Your task to perform on an android device: Open Google Image 0: 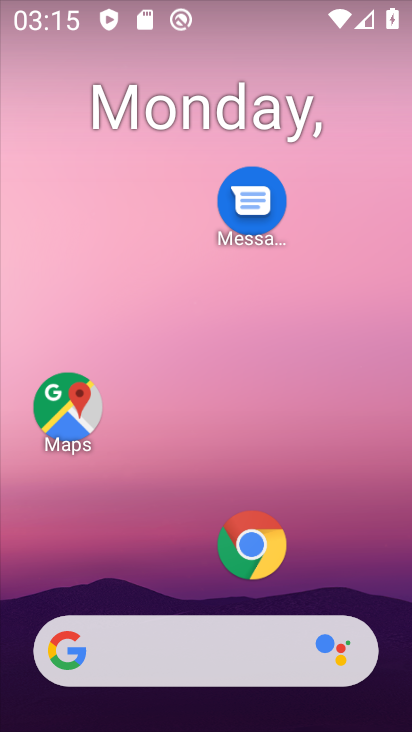
Step 0: drag from (167, 483) to (250, 58)
Your task to perform on an android device: Open Google Image 1: 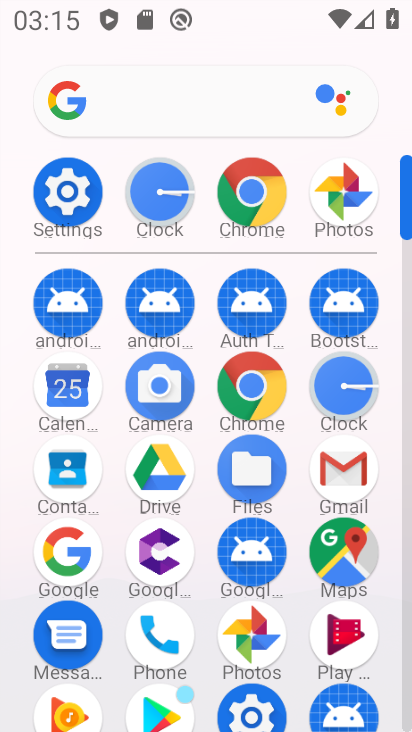
Step 1: click (64, 554)
Your task to perform on an android device: Open Google Image 2: 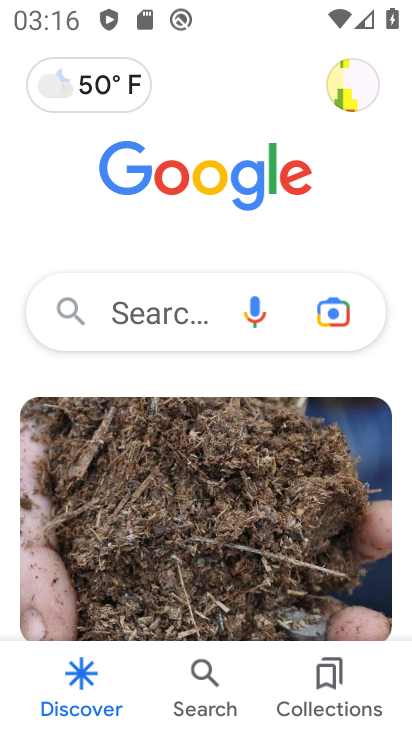
Step 2: task complete